Your task to perform on an android device: check battery use Image 0: 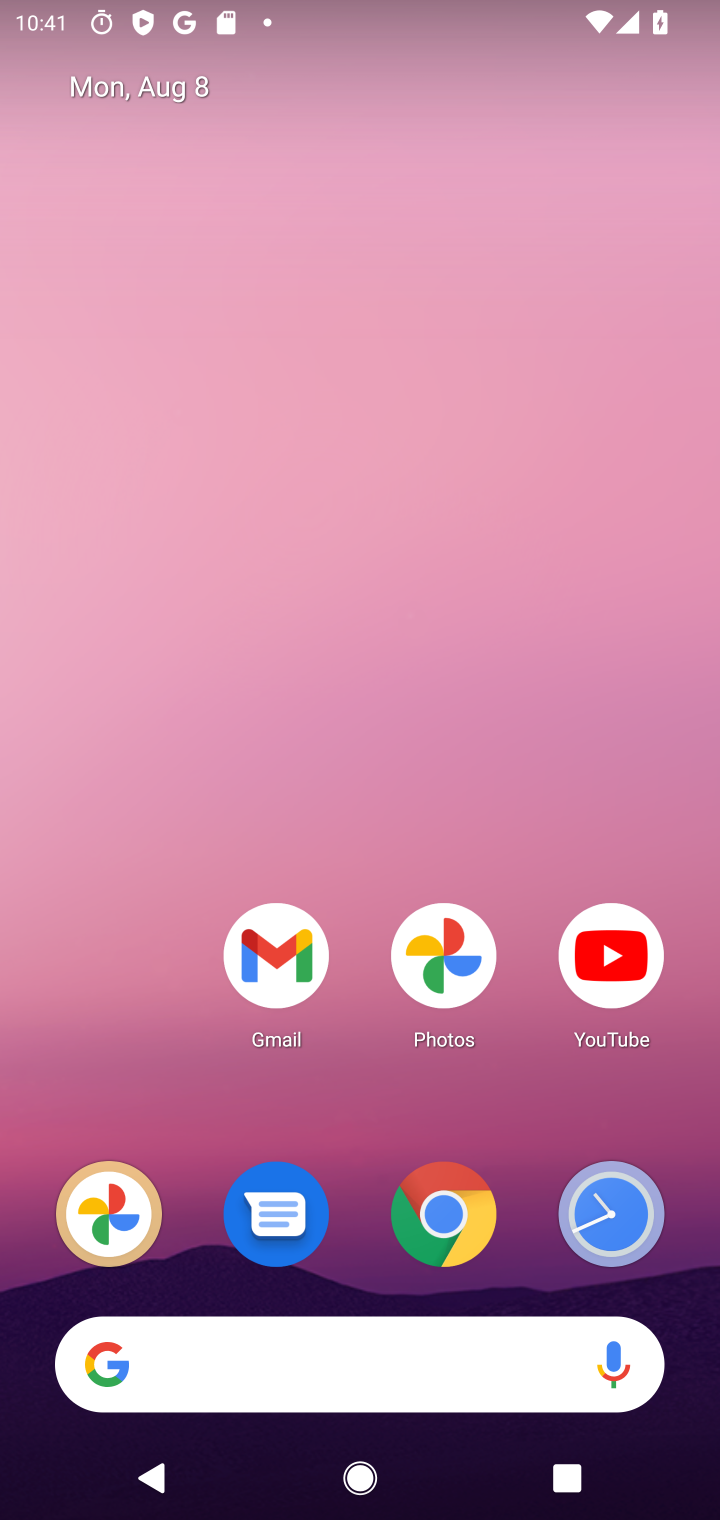
Step 0: drag from (75, 1462) to (325, 137)
Your task to perform on an android device: check battery use Image 1: 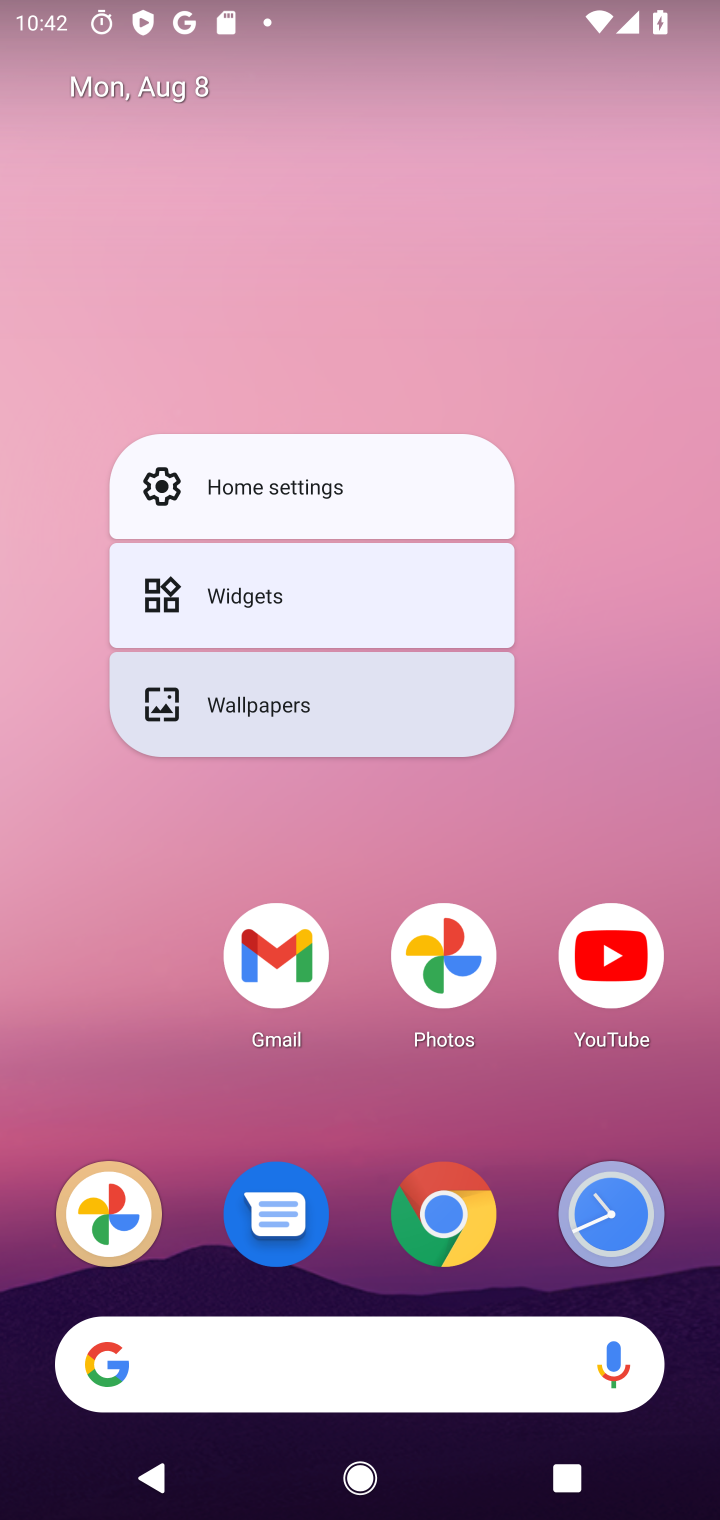
Step 1: task complete